Your task to perform on an android device: turn off location history Image 0: 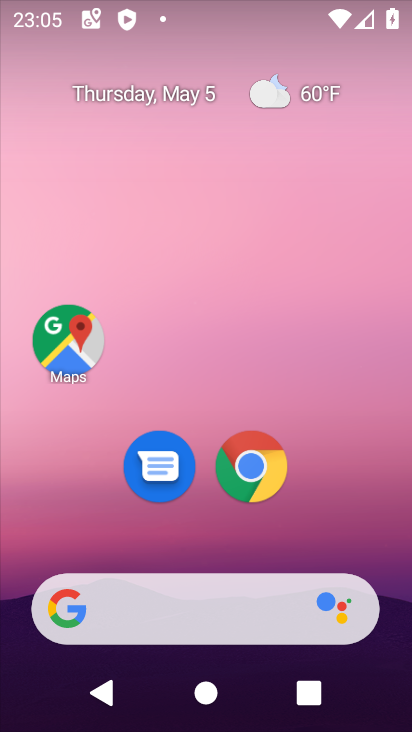
Step 0: drag from (213, 584) to (316, 248)
Your task to perform on an android device: turn off location history Image 1: 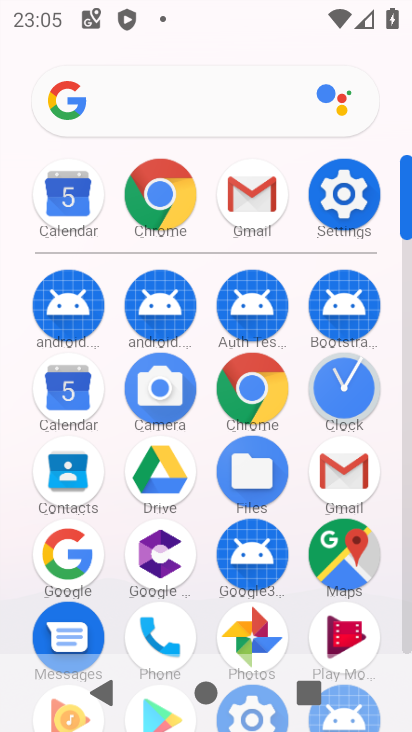
Step 1: click (348, 205)
Your task to perform on an android device: turn off location history Image 2: 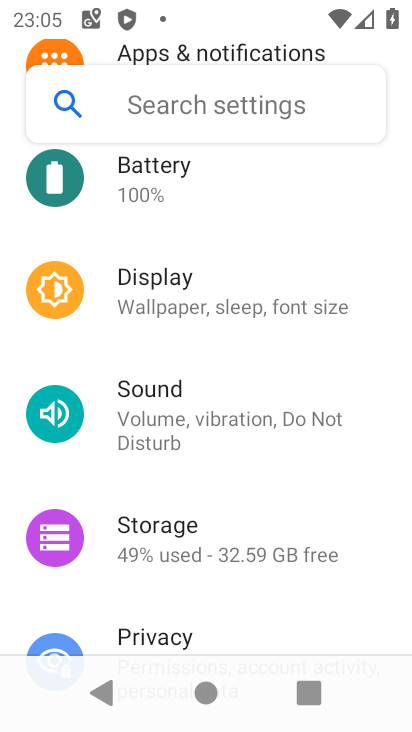
Step 2: drag from (165, 623) to (198, 247)
Your task to perform on an android device: turn off location history Image 3: 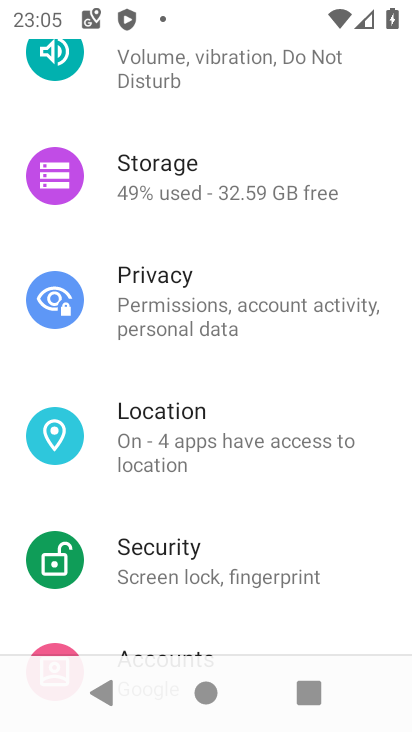
Step 3: click (195, 433)
Your task to perform on an android device: turn off location history Image 4: 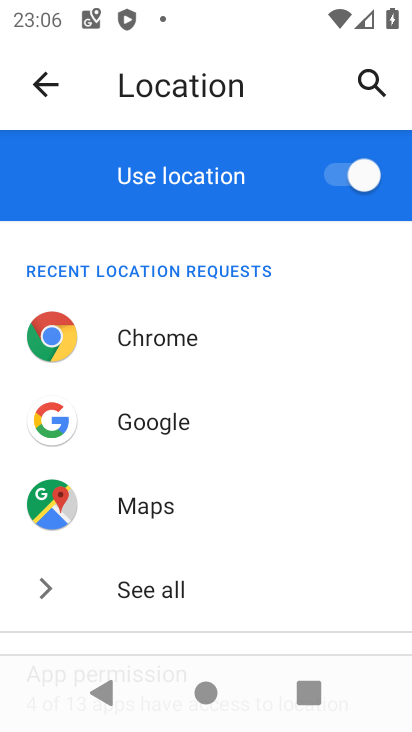
Step 4: drag from (268, 572) to (316, 183)
Your task to perform on an android device: turn off location history Image 5: 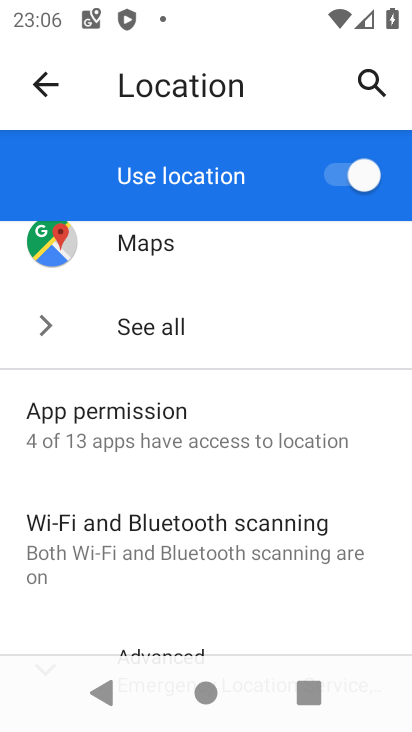
Step 5: drag from (187, 614) to (195, 324)
Your task to perform on an android device: turn off location history Image 6: 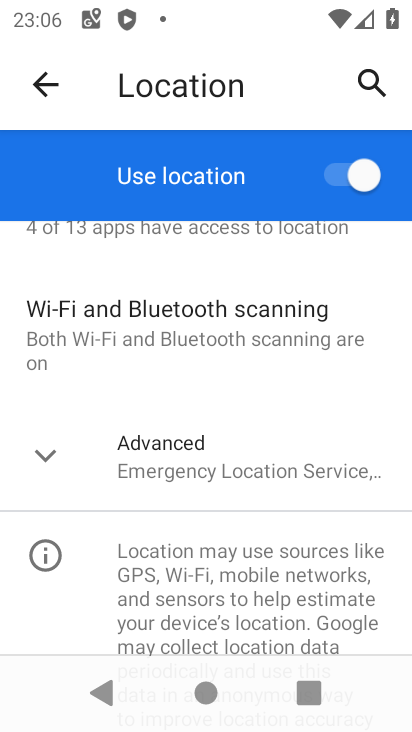
Step 6: click (183, 458)
Your task to perform on an android device: turn off location history Image 7: 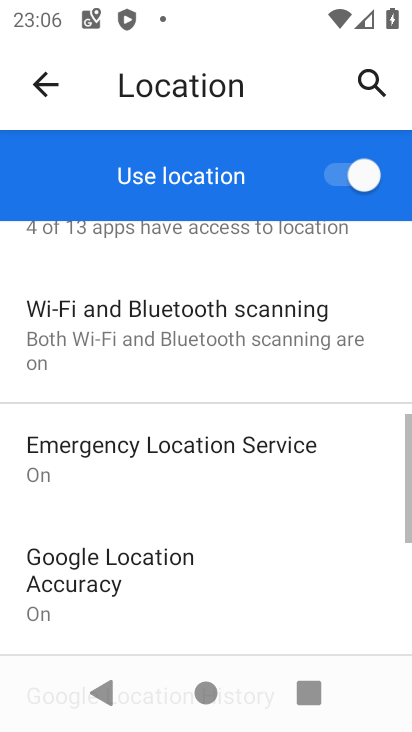
Step 7: drag from (214, 621) to (291, 277)
Your task to perform on an android device: turn off location history Image 8: 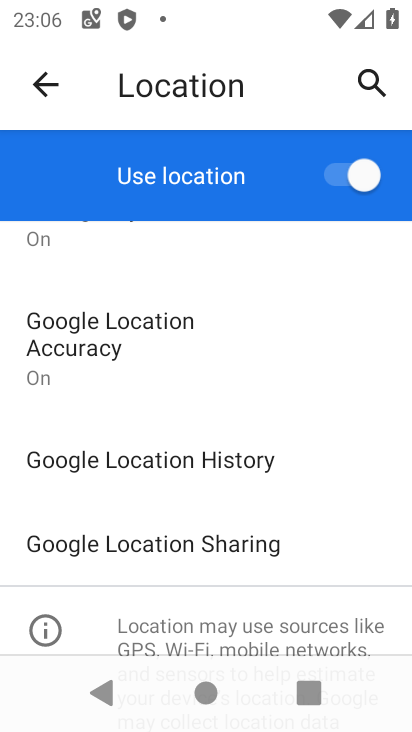
Step 8: click (206, 460)
Your task to perform on an android device: turn off location history Image 9: 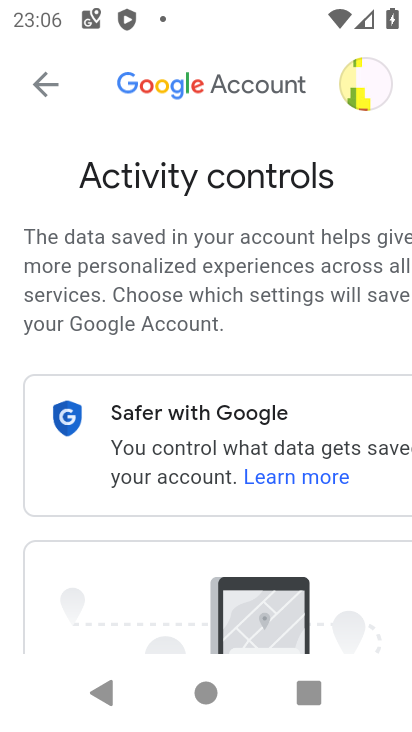
Step 9: task complete